Your task to perform on an android device: Show me popular games on the Play Store Image 0: 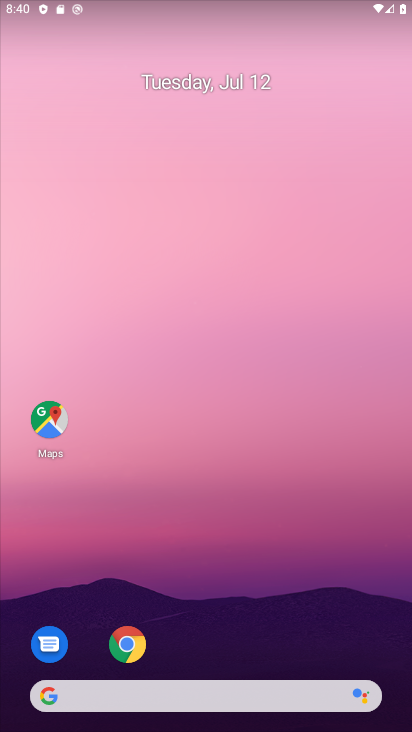
Step 0: drag from (171, 673) to (262, 72)
Your task to perform on an android device: Show me popular games on the Play Store Image 1: 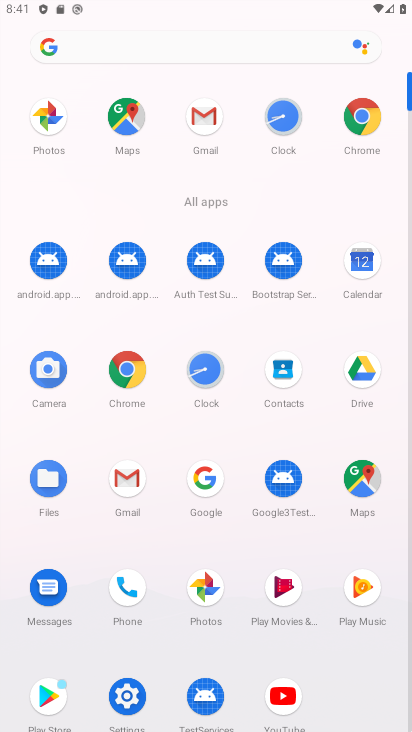
Step 1: click (50, 697)
Your task to perform on an android device: Show me popular games on the Play Store Image 2: 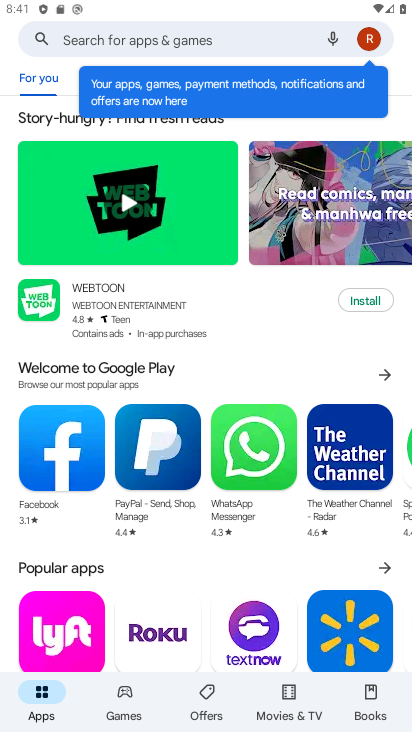
Step 2: click (129, 691)
Your task to perform on an android device: Show me popular games on the Play Store Image 3: 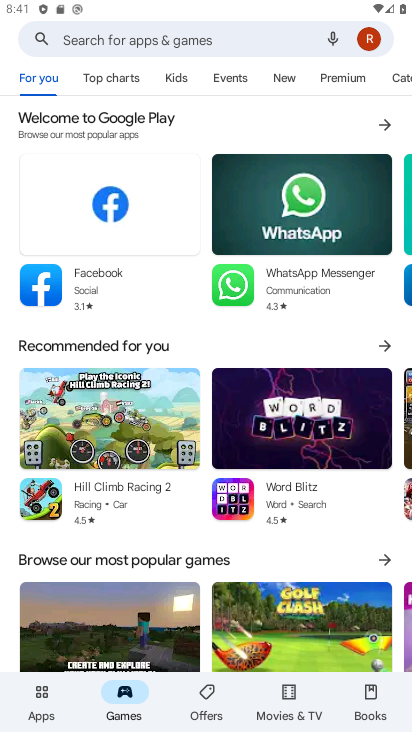
Step 3: click (390, 563)
Your task to perform on an android device: Show me popular games on the Play Store Image 4: 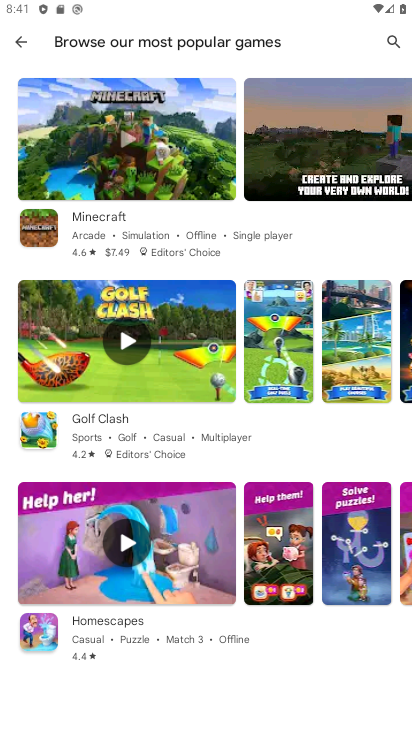
Step 4: task complete